Your task to perform on an android device: delete location history Image 0: 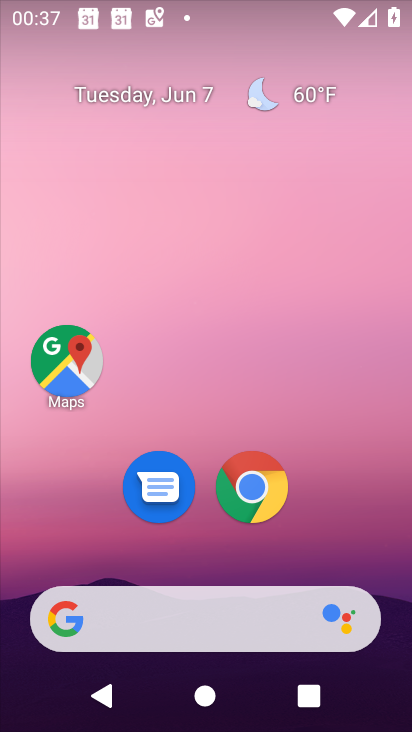
Step 0: click (79, 364)
Your task to perform on an android device: delete location history Image 1: 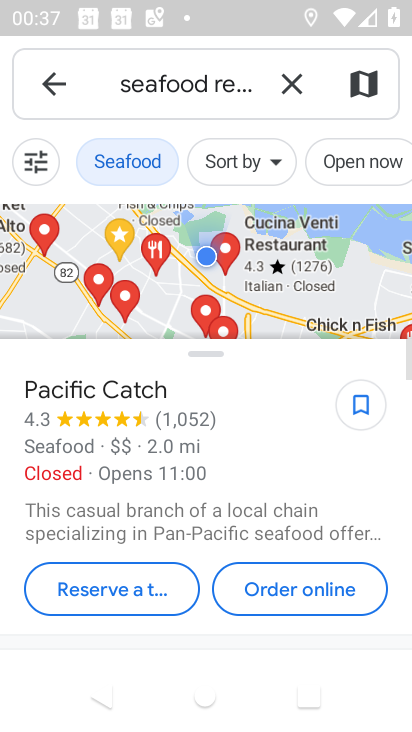
Step 1: click (55, 94)
Your task to perform on an android device: delete location history Image 2: 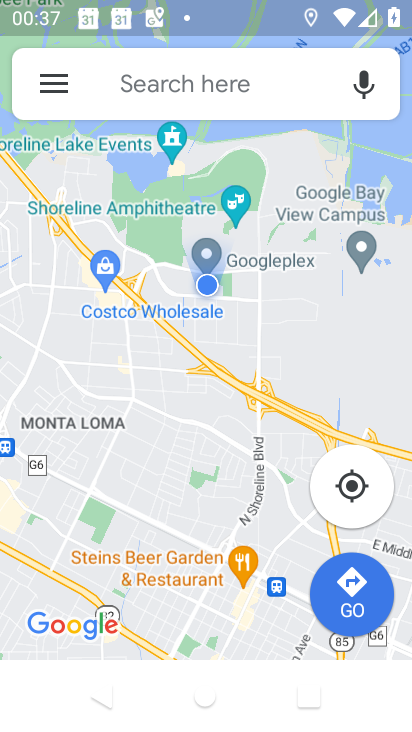
Step 2: click (55, 94)
Your task to perform on an android device: delete location history Image 3: 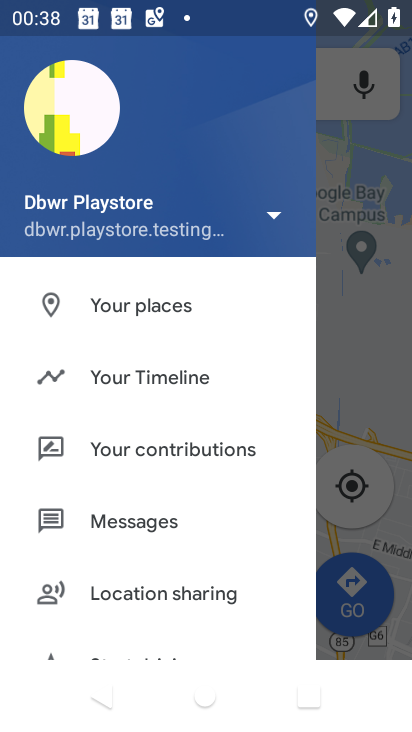
Step 3: click (197, 389)
Your task to perform on an android device: delete location history Image 4: 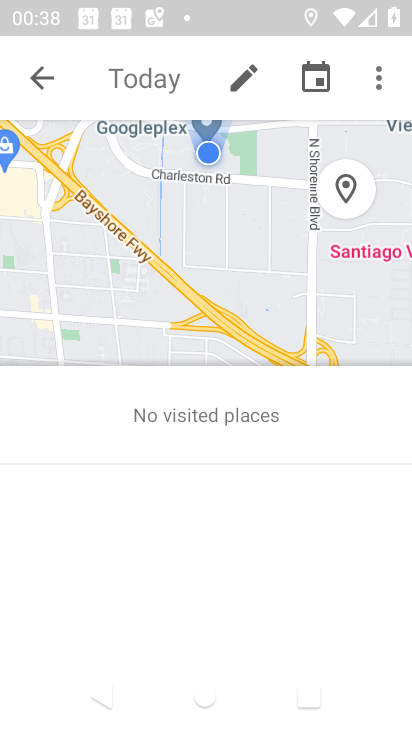
Step 4: click (367, 79)
Your task to perform on an android device: delete location history Image 5: 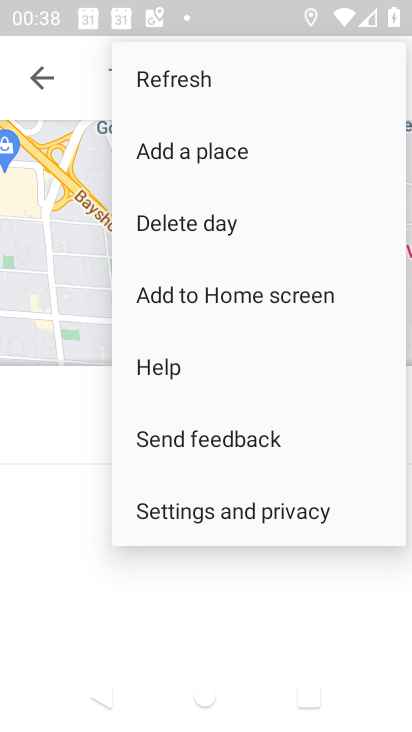
Step 5: click (257, 508)
Your task to perform on an android device: delete location history Image 6: 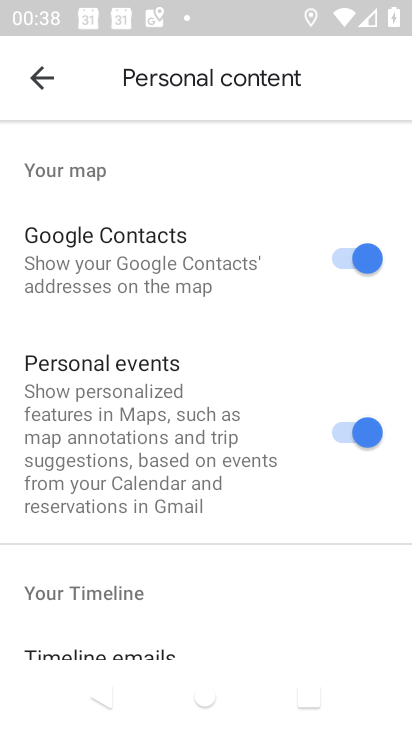
Step 6: drag from (271, 616) to (227, 73)
Your task to perform on an android device: delete location history Image 7: 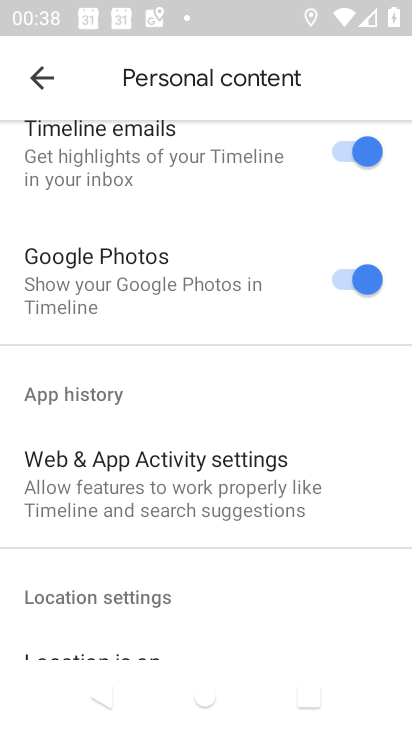
Step 7: drag from (228, 616) to (178, 145)
Your task to perform on an android device: delete location history Image 8: 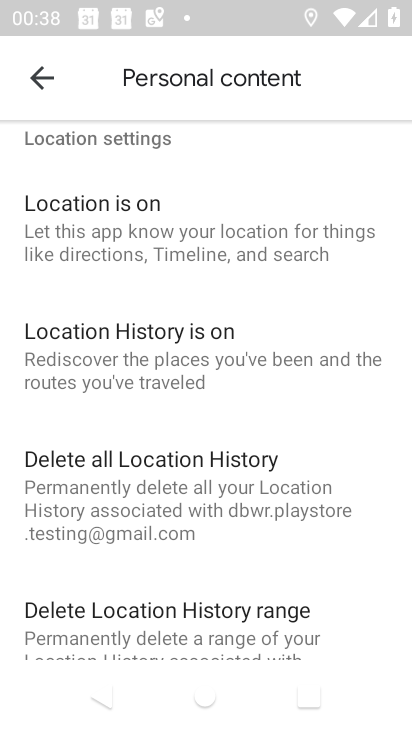
Step 8: click (220, 472)
Your task to perform on an android device: delete location history Image 9: 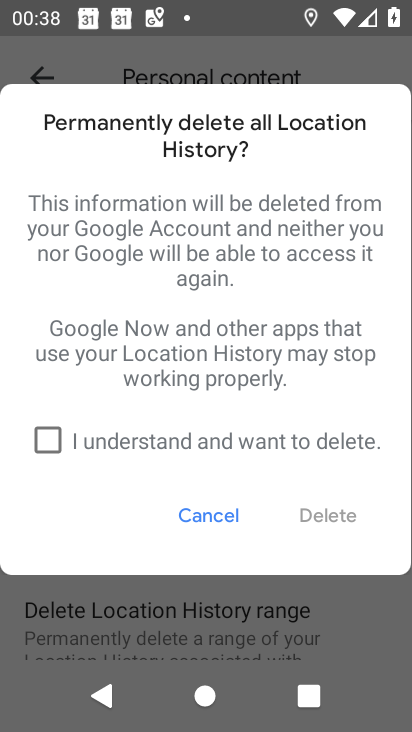
Step 9: click (214, 455)
Your task to perform on an android device: delete location history Image 10: 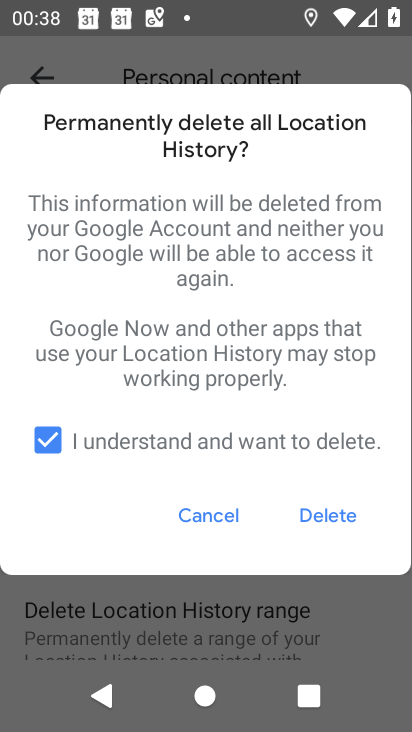
Step 10: click (307, 510)
Your task to perform on an android device: delete location history Image 11: 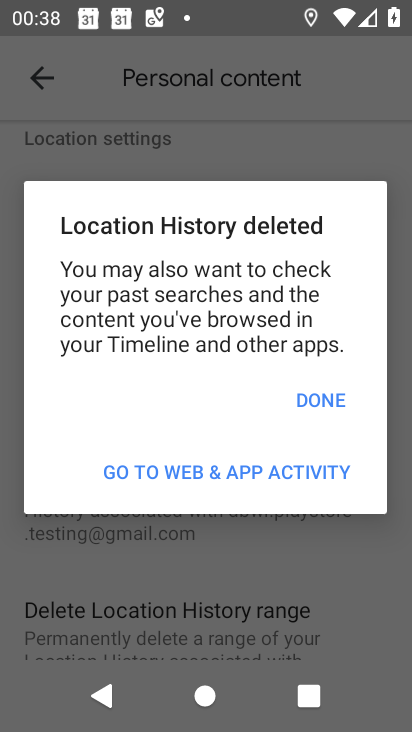
Step 11: click (323, 407)
Your task to perform on an android device: delete location history Image 12: 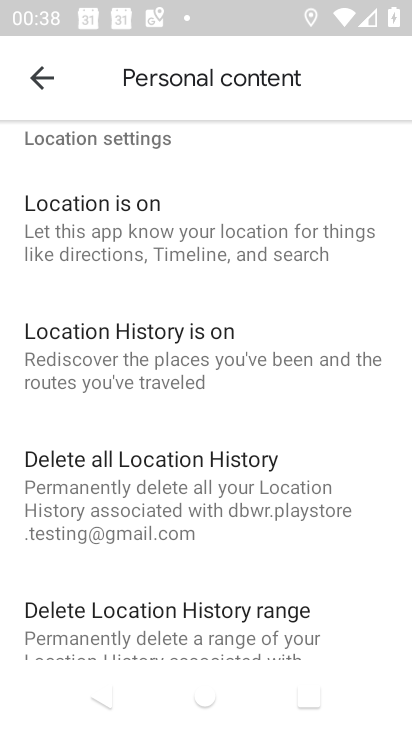
Step 12: task complete